Your task to perform on an android device: Add "asus rog" to the cart on costco, then select checkout. Image 0: 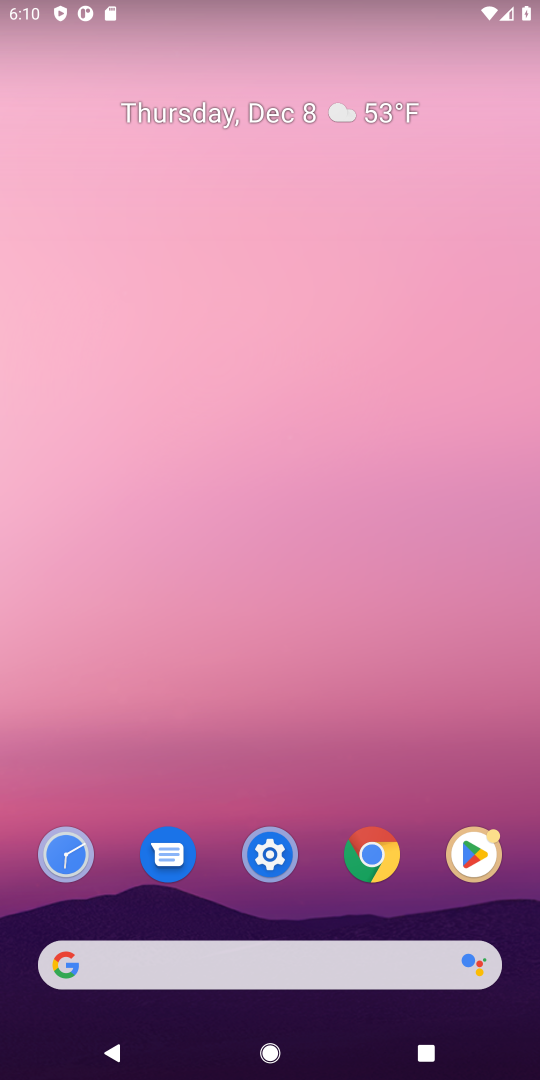
Step 0: press home button
Your task to perform on an android device: Add "asus rog" to the cart on costco, then select checkout. Image 1: 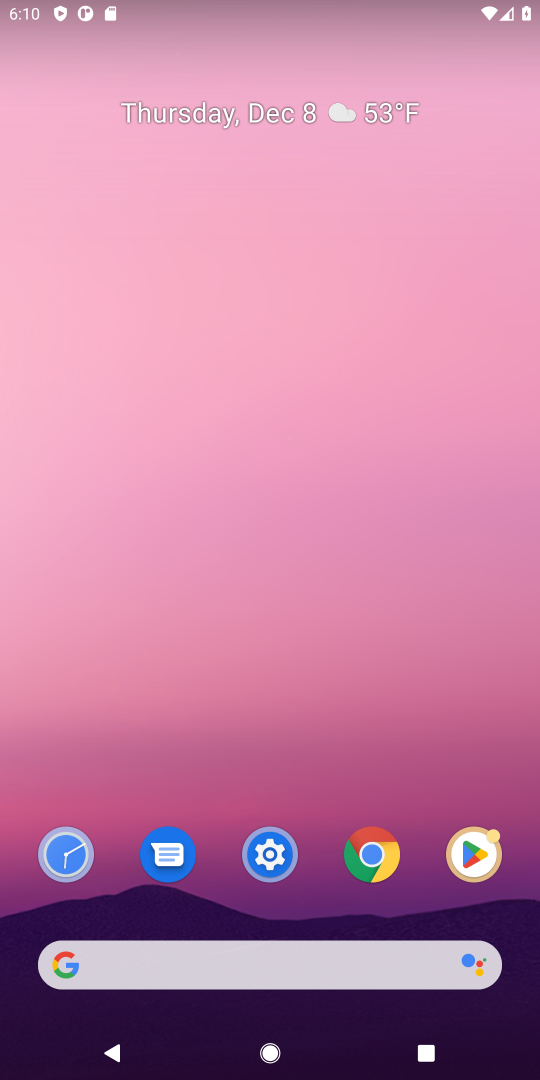
Step 1: click (127, 953)
Your task to perform on an android device: Add "asus rog" to the cart on costco, then select checkout. Image 2: 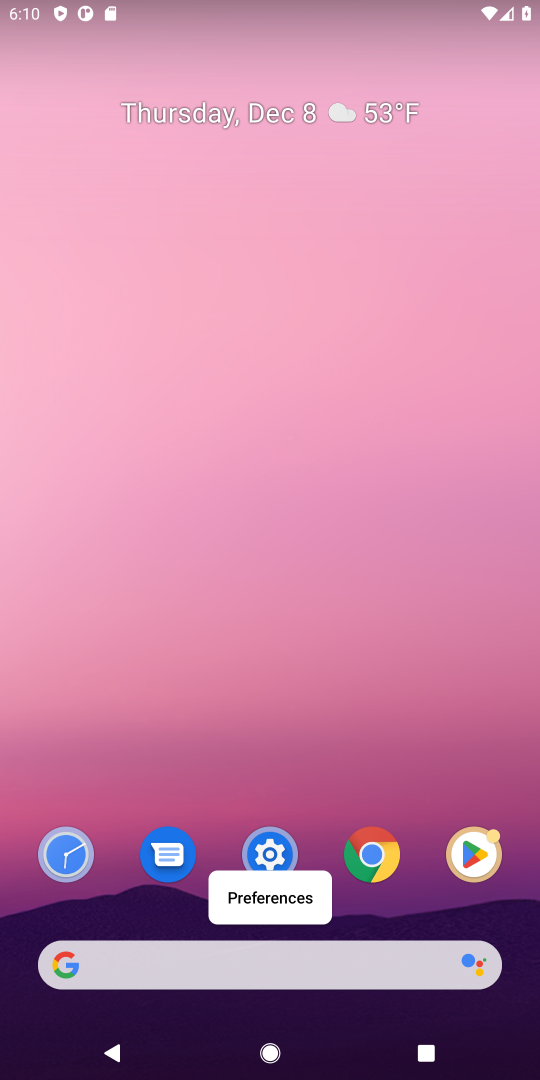
Step 2: click (96, 965)
Your task to perform on an android device: Add "asus rog" to the cart on costco, then select checkout. Image 3: 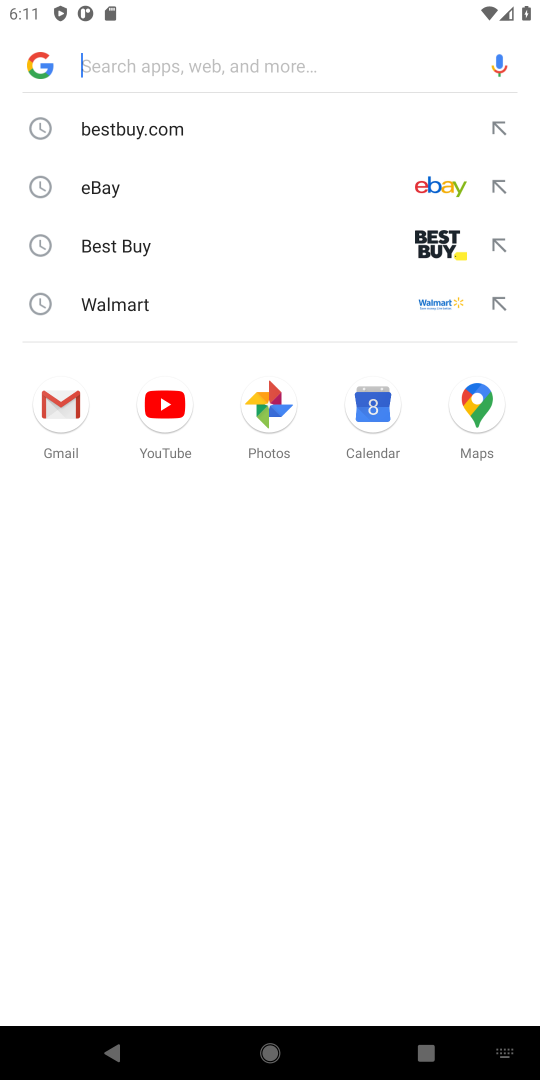
Step 3: type "costco"
Your task to perform on an android device: Add "asus rog" to the cart on costco, then select checkout. Image 4: 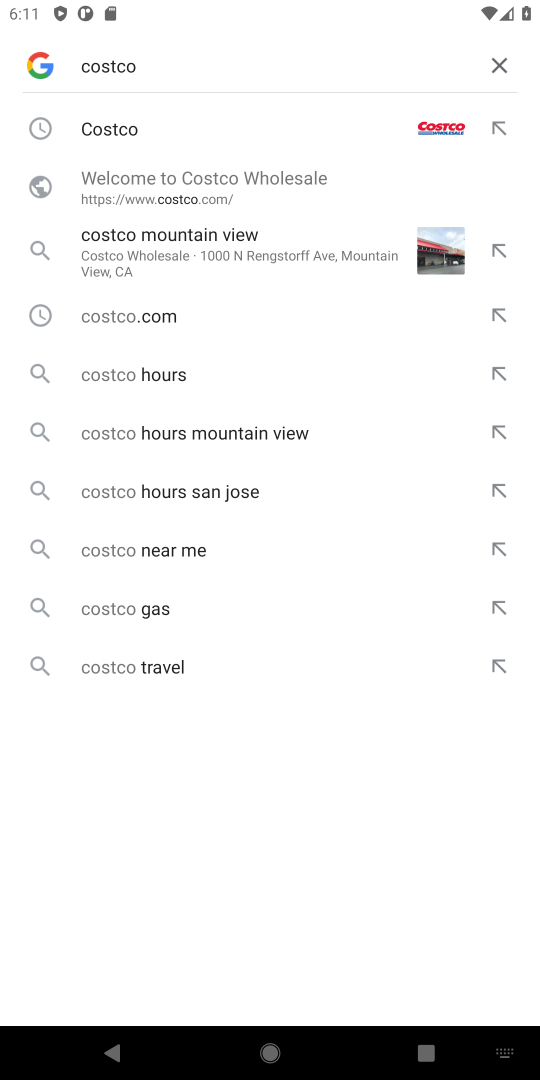
Step 4: press enter
Your task to perform on an android device: Add "asus rog" to the cart on costco, then select checkout. Image 5: 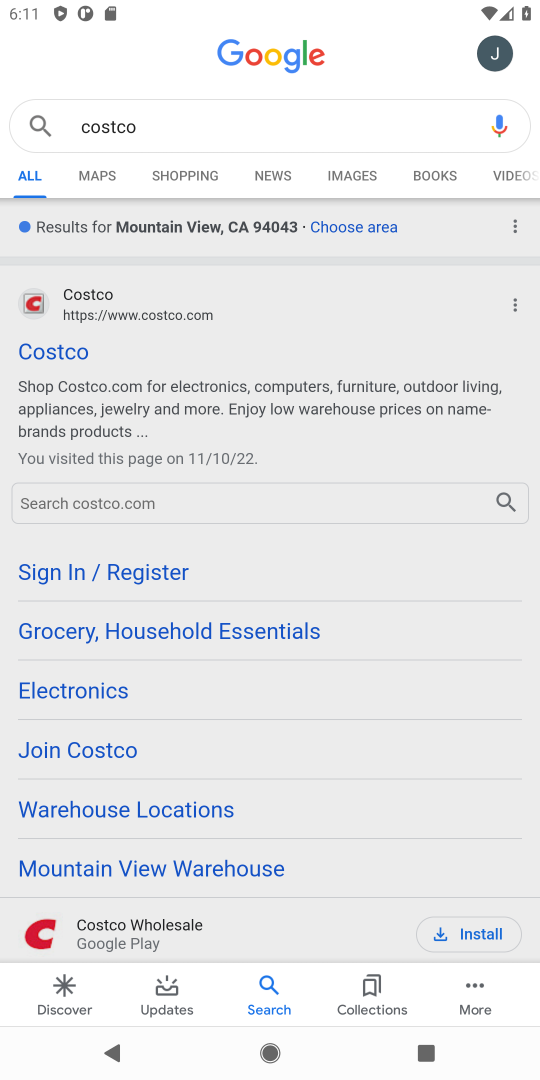
Step 5: click (54, 345)
Your task to perform on an android device: Add "asus rog" to the cart on costco, then select checkout. Image 6: 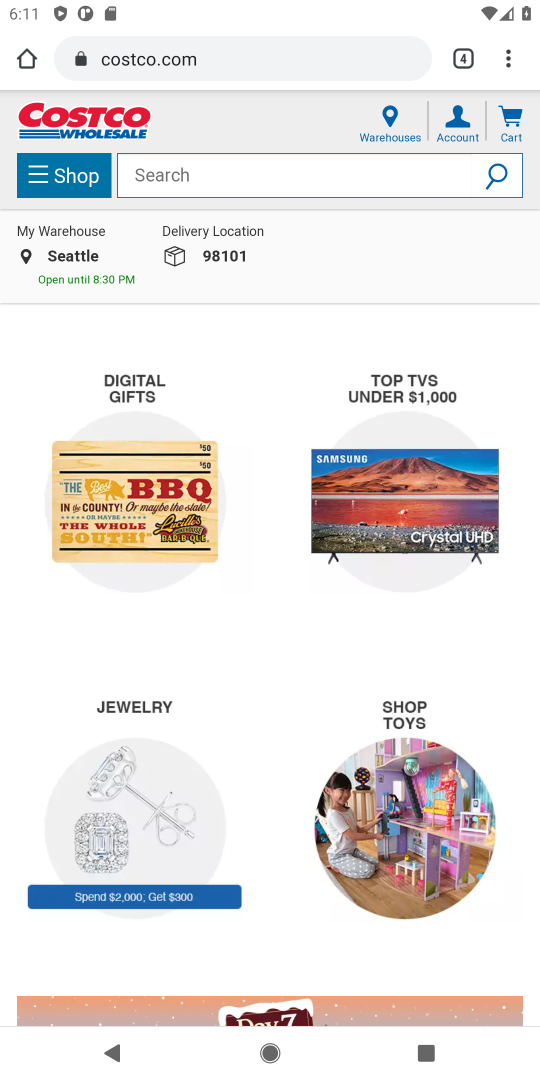
Step 6: click (190, 169)
Your task to perform on an android device: Add "asus rog" to the cart on costco, then select checkout. Image 7: 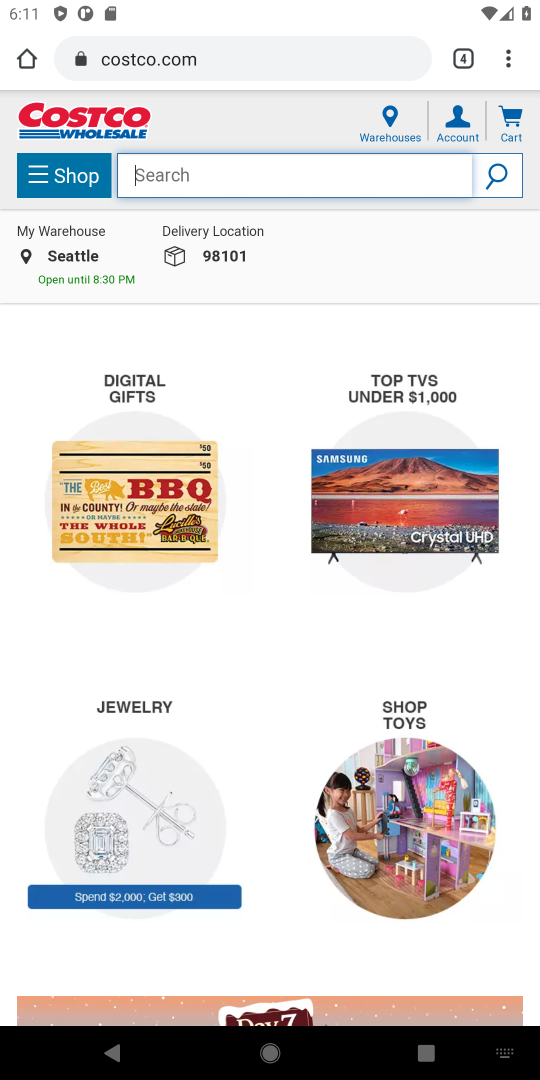
Step 7: type "asus rog"
Your task to perform on an android device: Add "asus rog" to the cart on costco, then select checkout. Image 8: 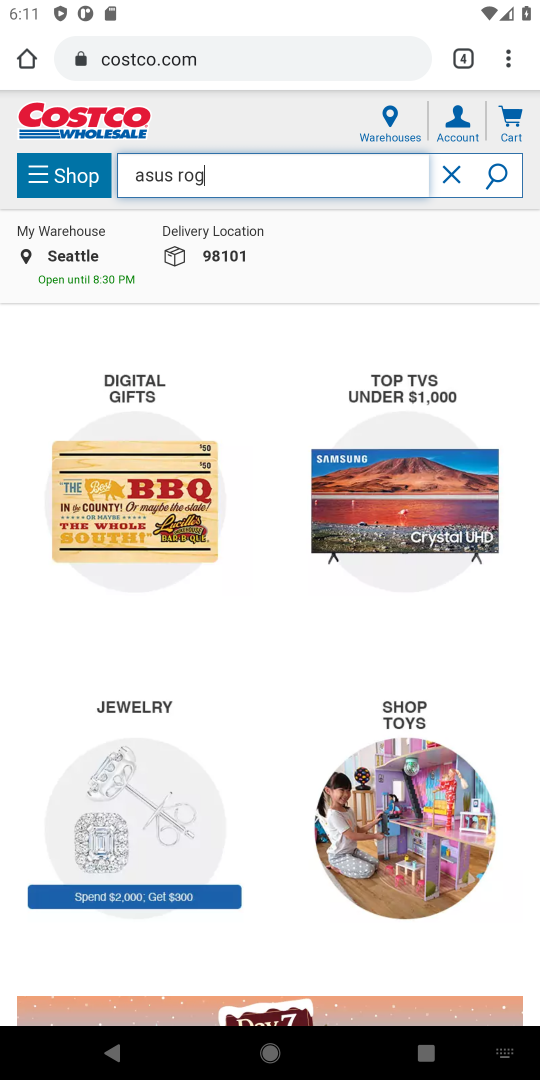
Step 8: press enter
Your task to perform on an android device: Add "asus rog" to the cart on costco, then select checkout. Image 9: 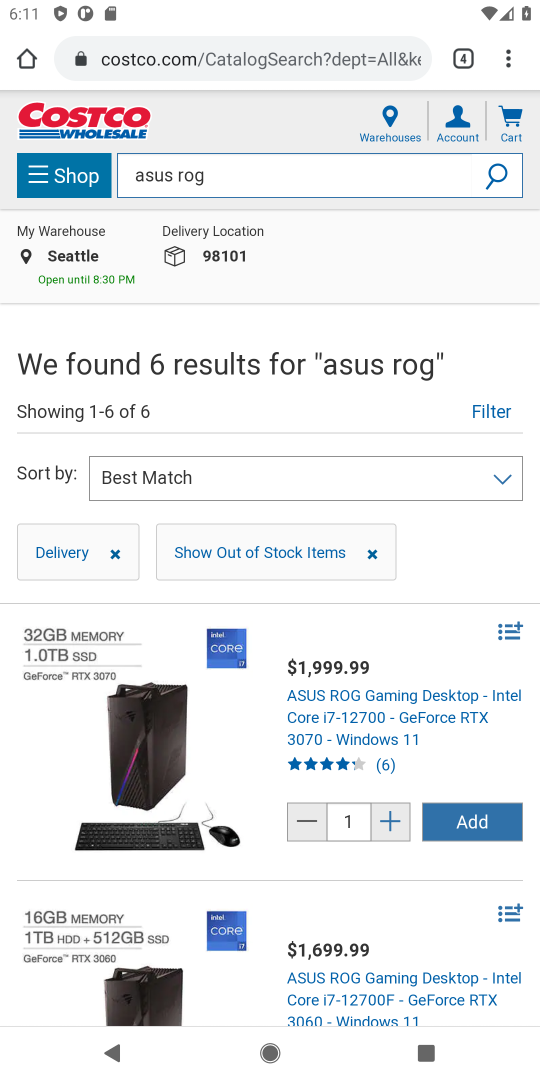
Step 9: click (465, 834)
Your task to perform on an android device: Add "asus rog" to the cart on costco, then select checkout. Image 10: 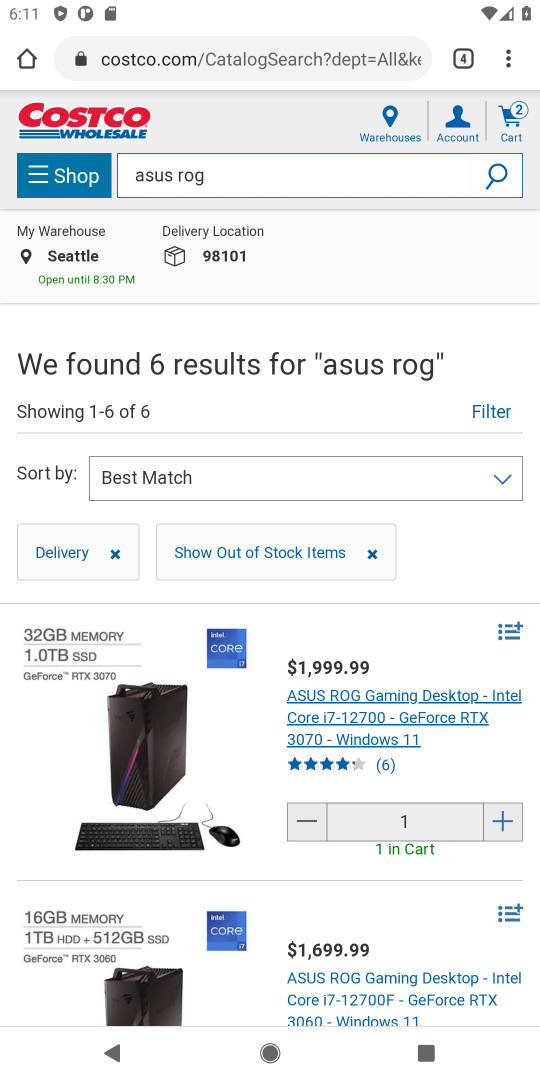
Step 10: click (504, 105)
Your task to perform on an android device: Add "asus rog" to the cart on costco, then select checkout. Image 11: 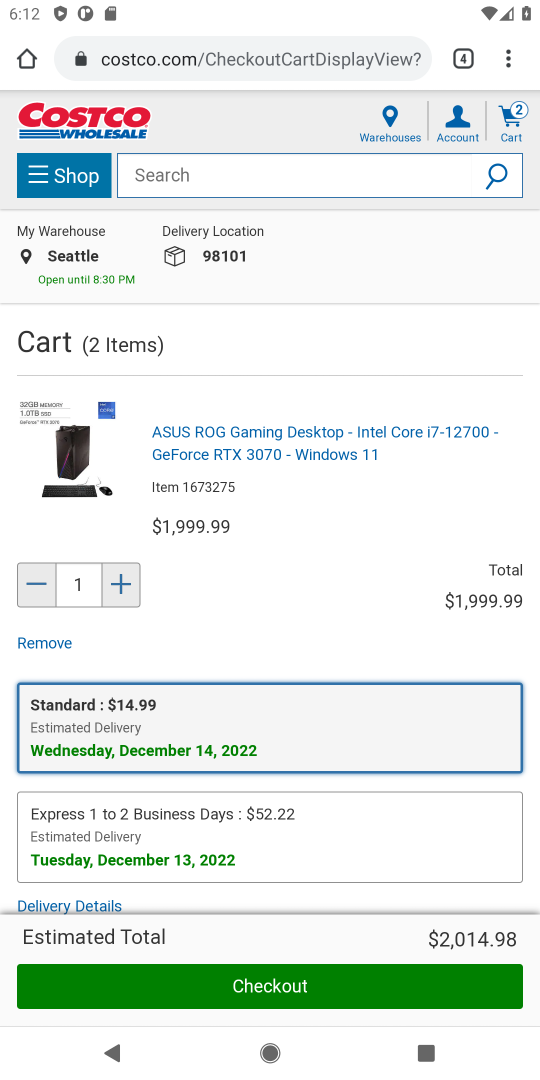
Step 11: click (299, 988)
Your task to perform on an android device: Add "asus rog" to the cart on costco, then select checkout. Image 12: 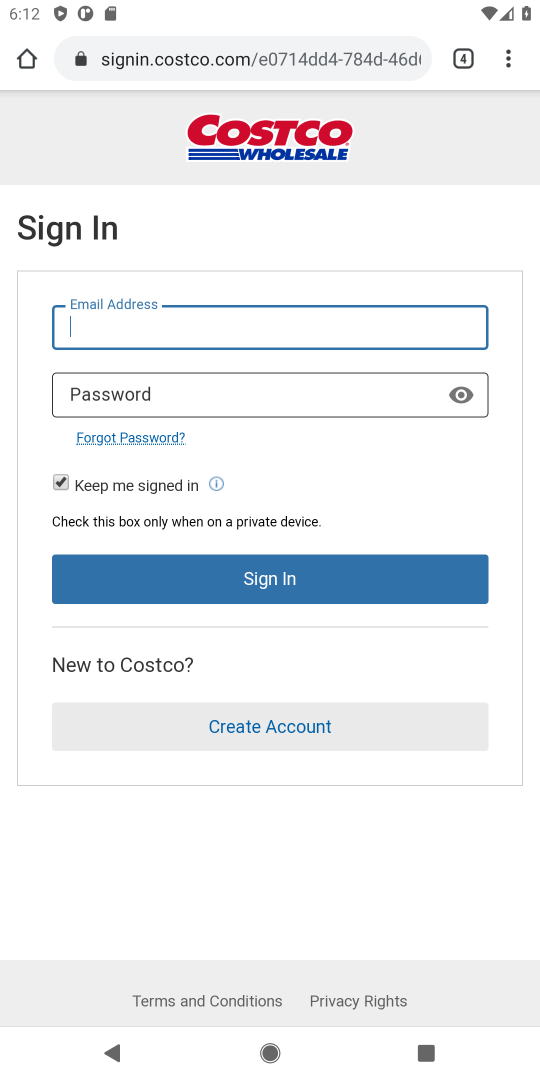
Step 12: task complete